Your task to perform on an android device: change keyboard looks Image 0: 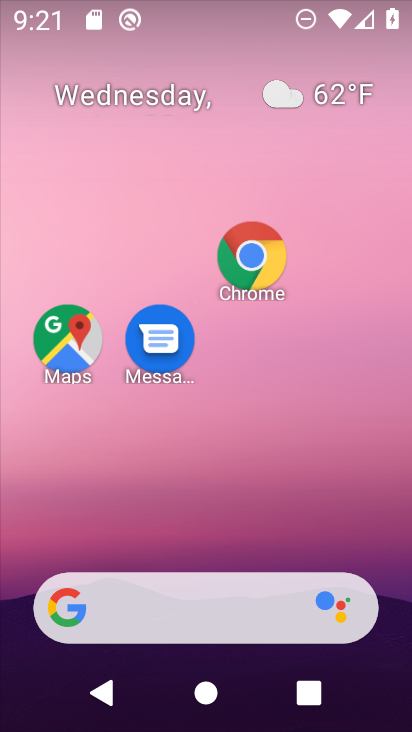
Step 0: drag from (224, 484) to (145, 53)
Your task to perform on an android device: change keyboard looks Image 1: 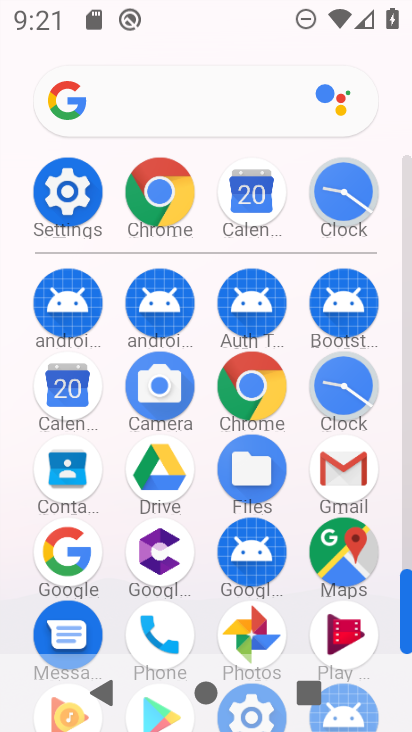
Step 1: click (67, 192)
Your task to perform on an android device: change keyboard looks Image 2: 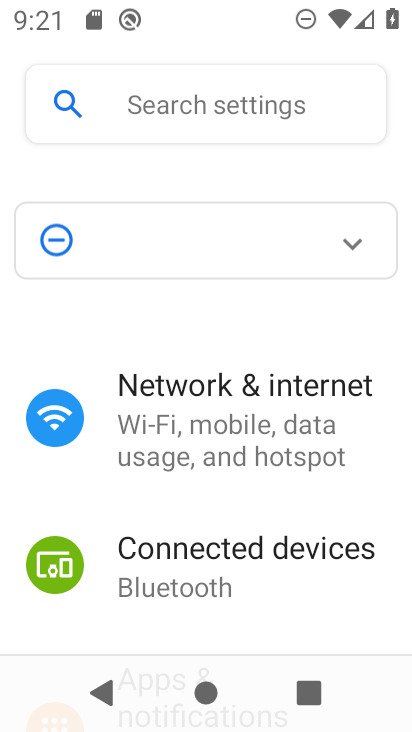
Step 2: drag from (281, 549) to (227, 39)
Your task to perform on an android device: change keyboard looks Image 3: 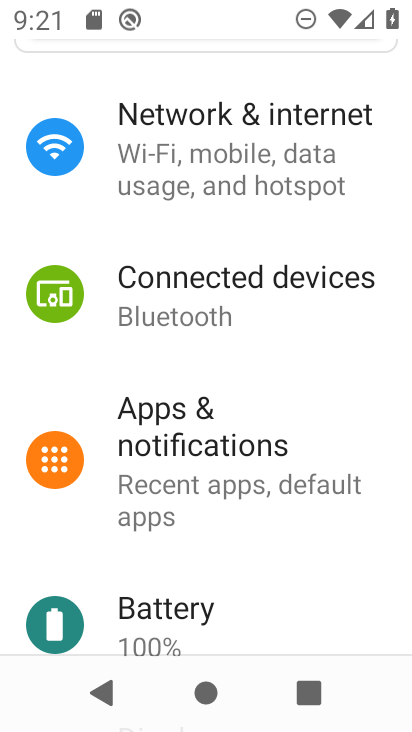
Step 3: drag from (261, 567) to (216, 51)
Your task to perform on an android device: change keyboard looks Image 4: 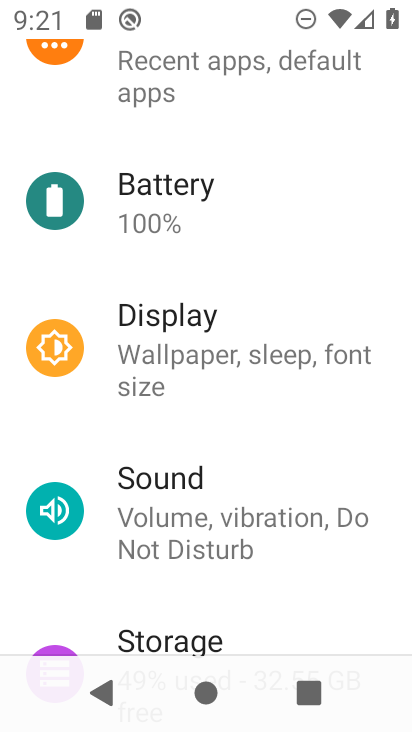
Step 4: drag from (253, 622) to (205, 70)
Your task to perform on an android device: change keyboard looks Image 5: 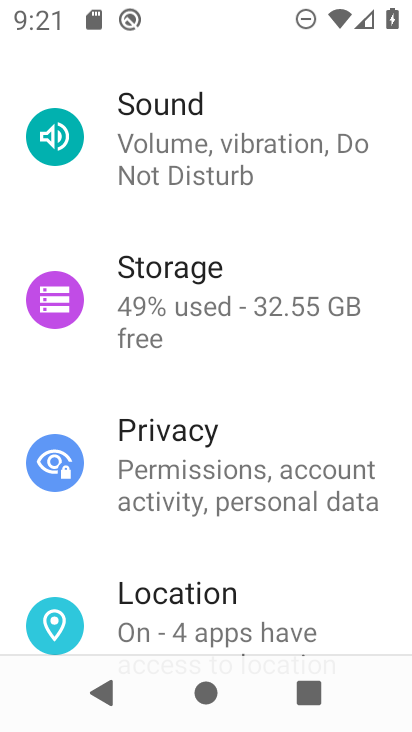
Step 5: drag from (243, 530) to (220, 135)
Your task to perform on an android device: change keyboard looks Image 6: 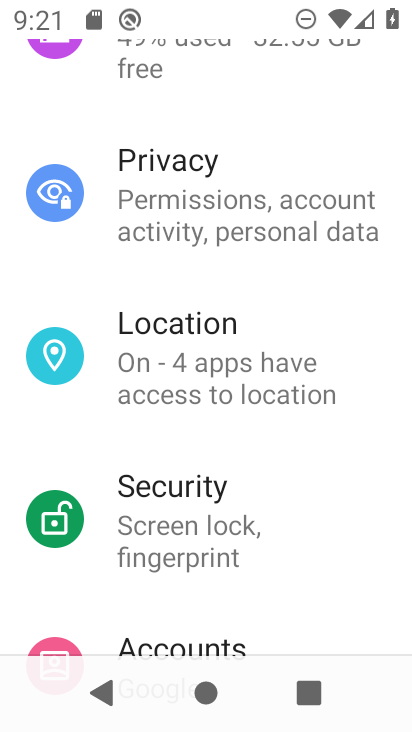
Step 6: drag from (228, 568) to (217, 82)
Your task to perform on an android device: change keyboard looks Image 7: 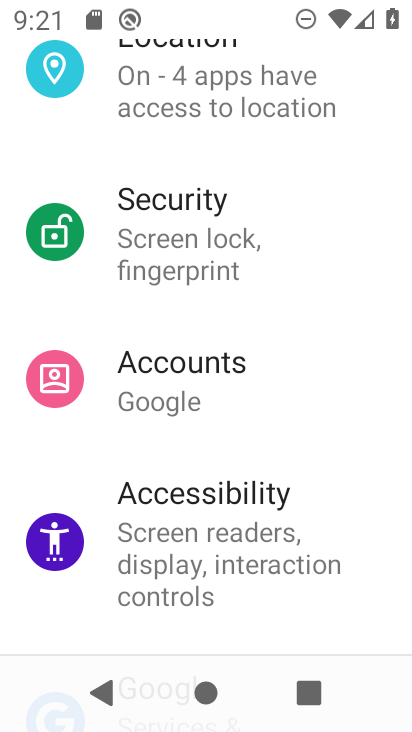
Step 7: drag from (296, 574) to (255, 100)
Your task to perform on an android device: change keyboard looks Image 8: 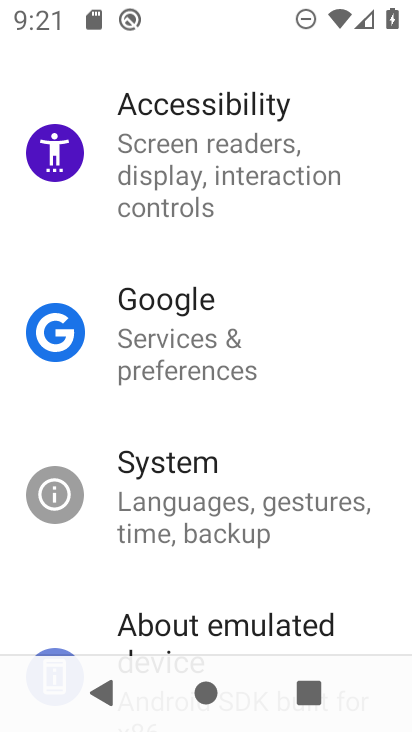
Step 8: click (133, 506)
Your task to perform on an android device: change keyboard looks Image 9: 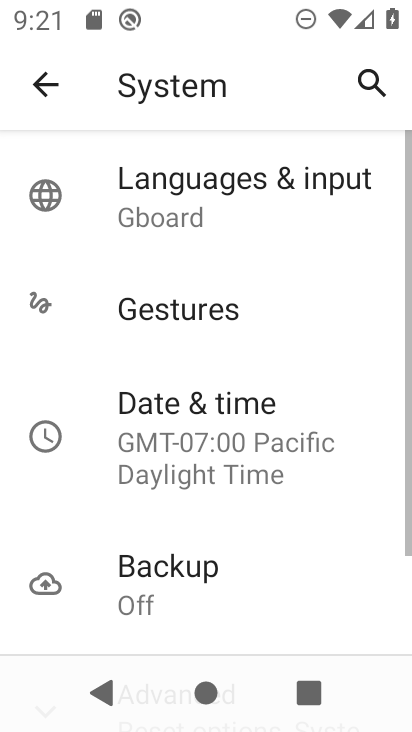
Step 9: click (178, 194)
Your task to perform on an android device: change keyboard looks Image 10: 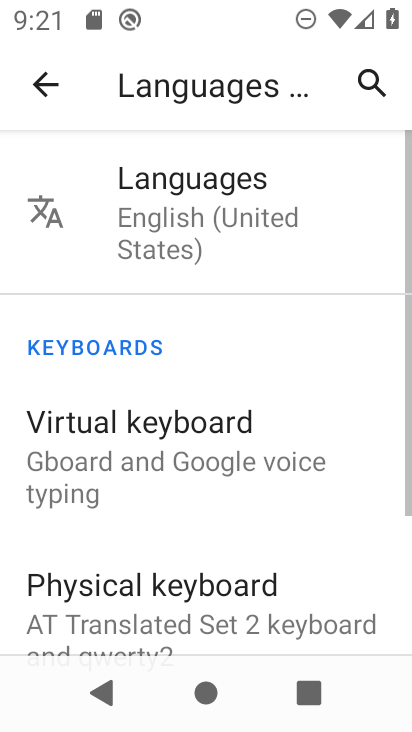
Step 10: click (152, 455)
Your task to perform on an android device: change keyboard looks Image 11: 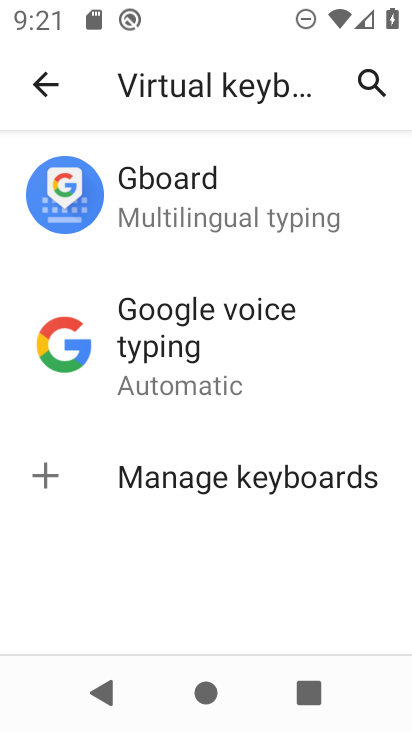
Step 11: click (163, 194)
Your task to perform on an android device: change keyboard looks Image 12: 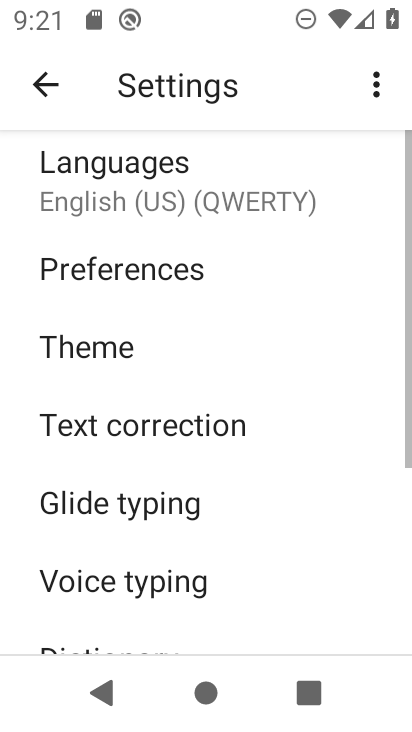
Step 12: click (140, 357)
Your task to perform on an android device: change keyboard looks Image 13: 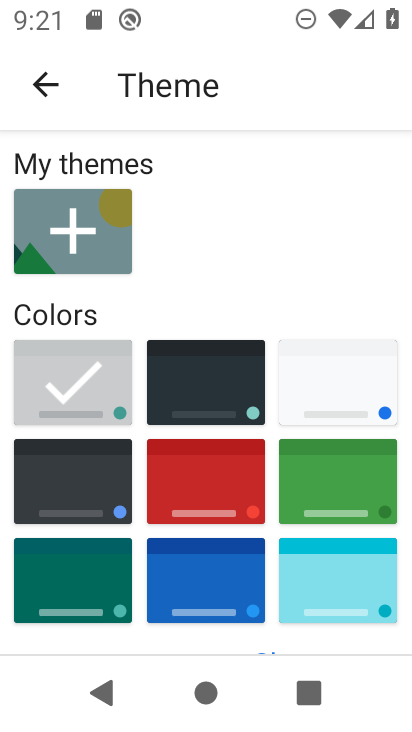
Step 13: click (203, 406)
Your task to perform on an android device: change keyboard looks Image 14: 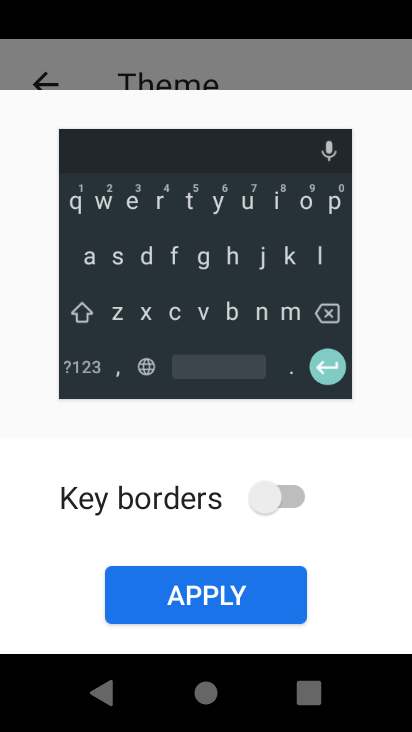
Step 14: click (242, 595)
Your task to perform on an android device: change keyboard looks Image 15: 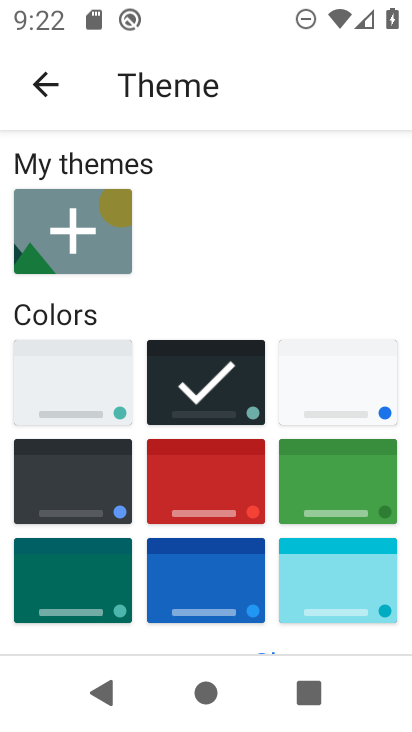
Step 15: task complete